Your task to perform on an android device: Open Reddit.com Image 0: 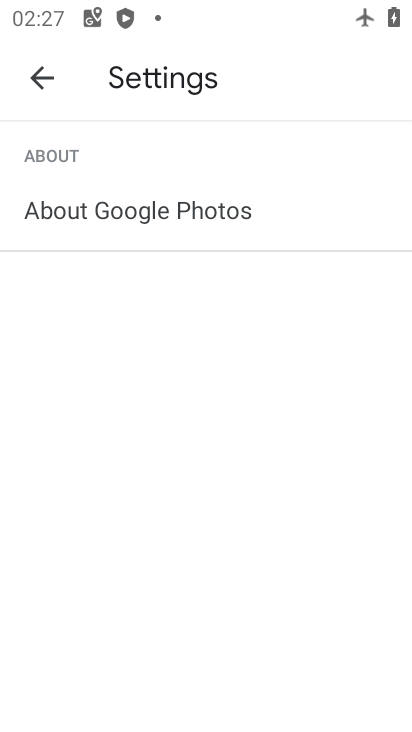
Step 0: press home button
Your task to perform on an android device: Open Reddit.com Image 1: 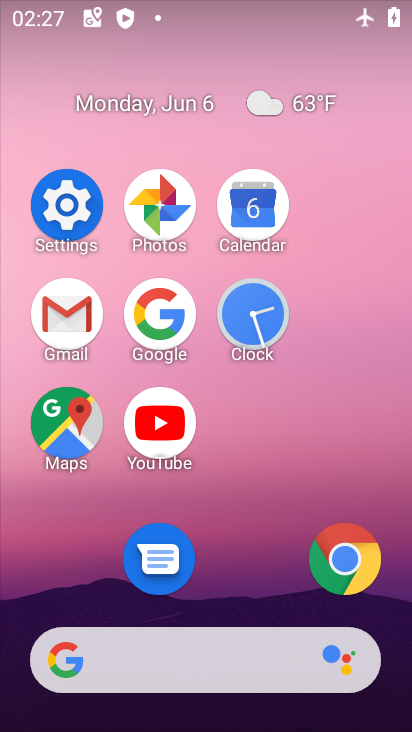
Step 1: click (168, 316)
Your task to perform on an android device: Open Reddit.com Image 2: 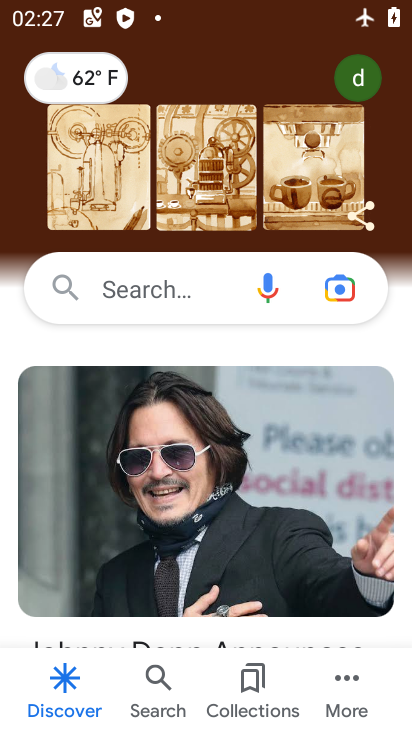
Step 2: click (186, 292)
Your task to perform on an android device: Open Reddit.com Image 3: 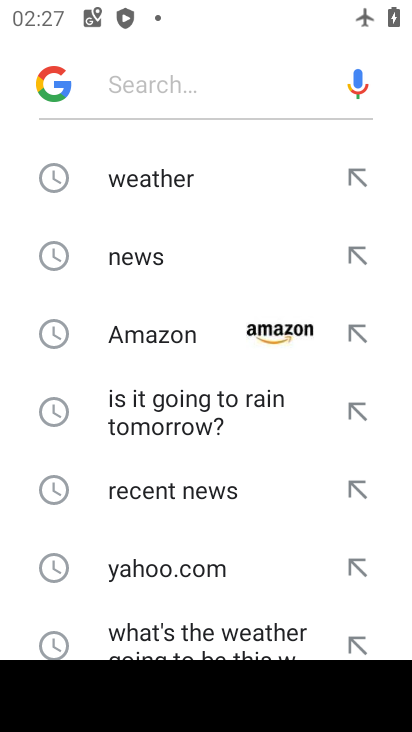
Step 3: drag from (197, 529) to (221, 155)
Your task to perform on an android device: Open Reddit.com Image 4: 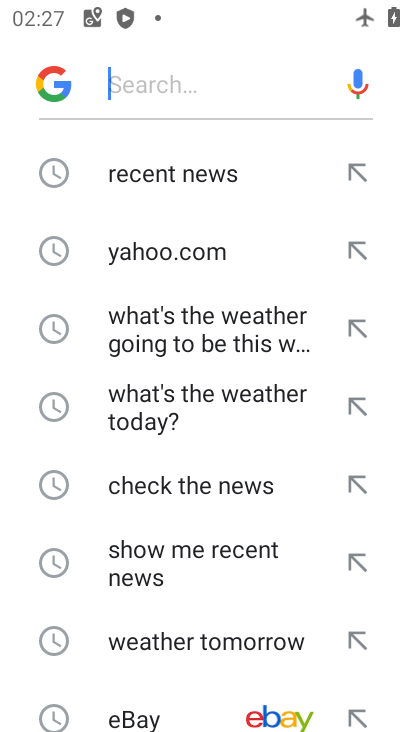
Step 4: drag from (140, 550) to (196, 189)
Your task to perform on an android device: Open Reddit.com Image 5: 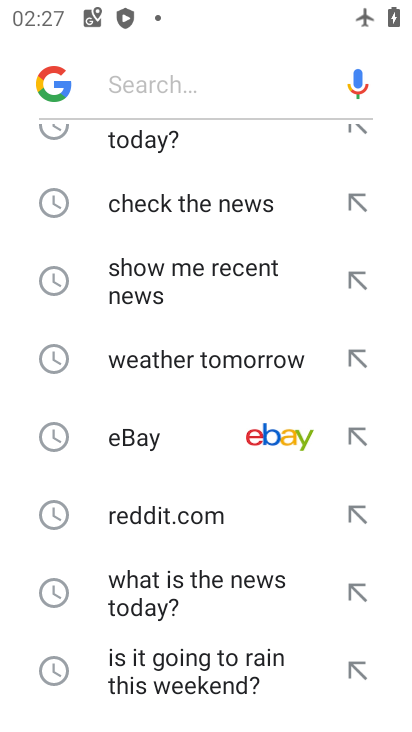
Step 5: click (156, 514)
Your task to perform on an android device: Open Reddit.com Image 6: 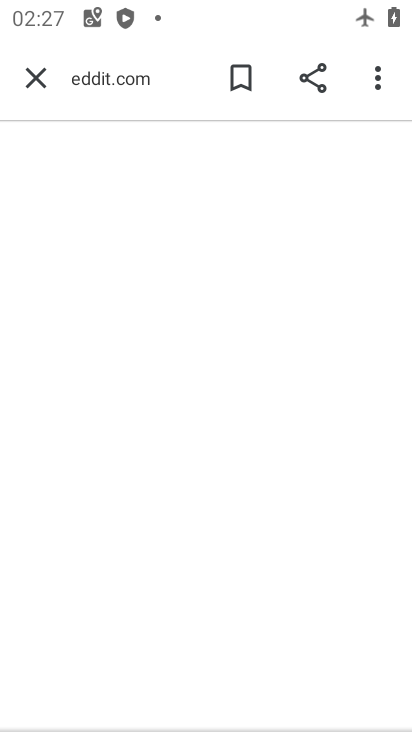
Step 6: task complete